Your task to perform on an android device: change alarm snooze length Image 0: 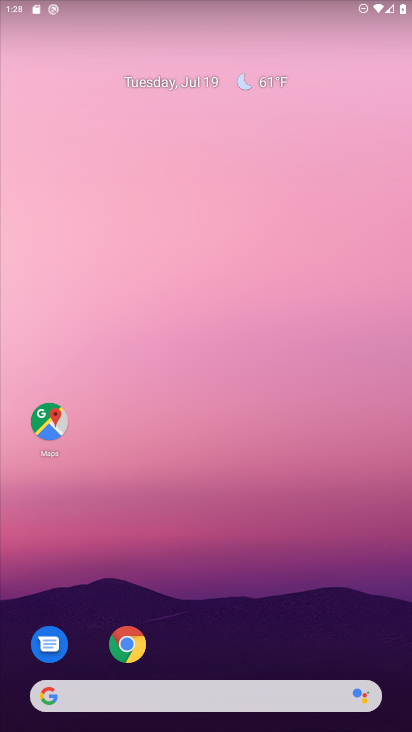
Step 0: drag from (388, 693) to (344, 50)
Your task to perform on an android device: change alarm snooze length Image 1: 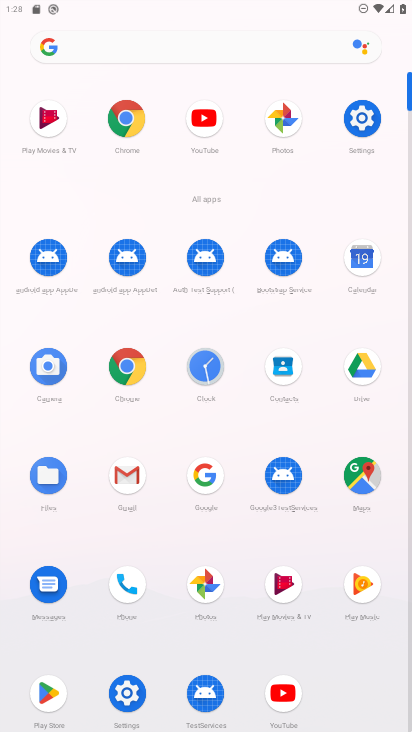
Step 1: click (356, 122)
Your task to perform on an android device: change alarm snooze length Image 2: 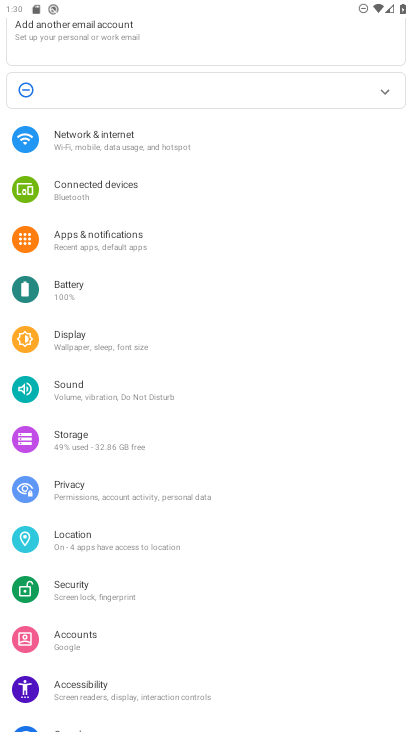
Step 2: drag from (204, 659) to (217, 270)
Your task to perform on an android device: change alarm snooze length Image 3: 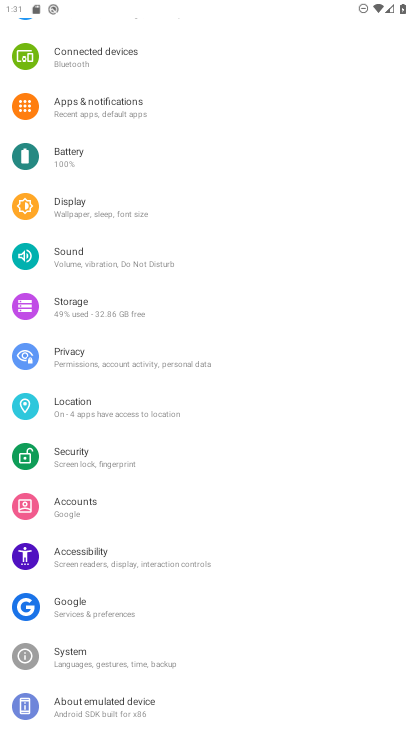
Step 3: press home button
Your task to perform on an android device: change alarm snooze length Image 4: 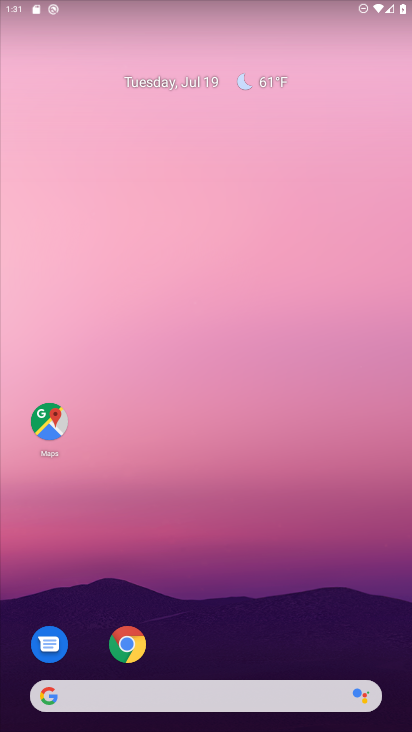
Step 4: drag from (389, 581) to (369, 5)
Your task to perform on an android device: change alarm snooze length Image 5: 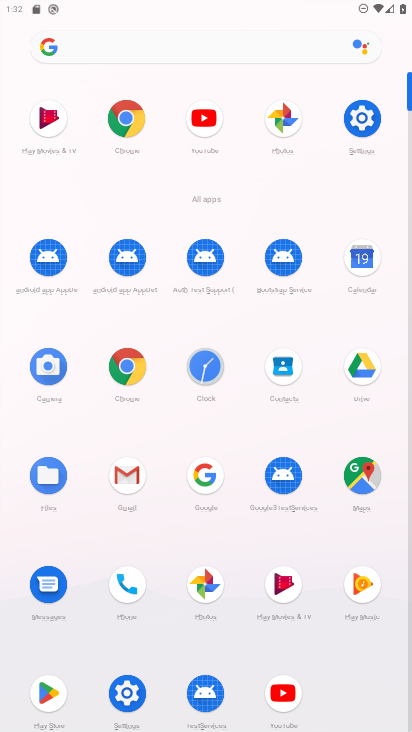
Step 5: click (372, 126)
Your task to perform on an android device: change alarm snooze length Image 6: 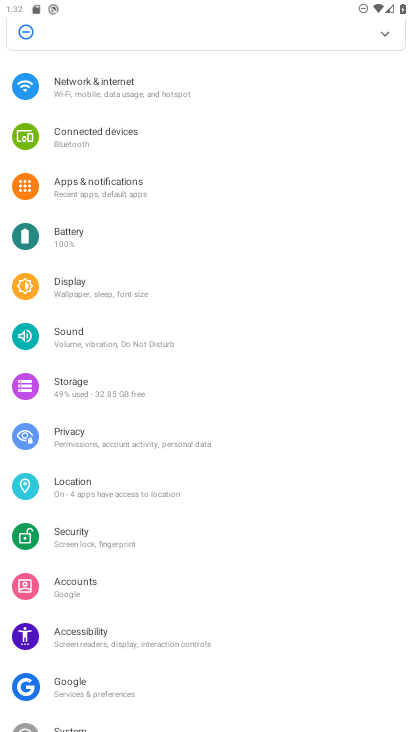
Step 6: press back button
Your task to perform on an android device: change alarm snooze length Image 7: 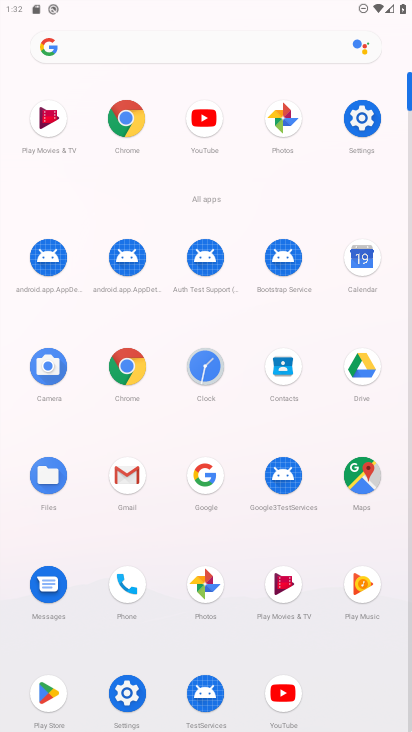
Step 7: press home button
Your task to perform on an android device: change alarm snooze length Image 8: 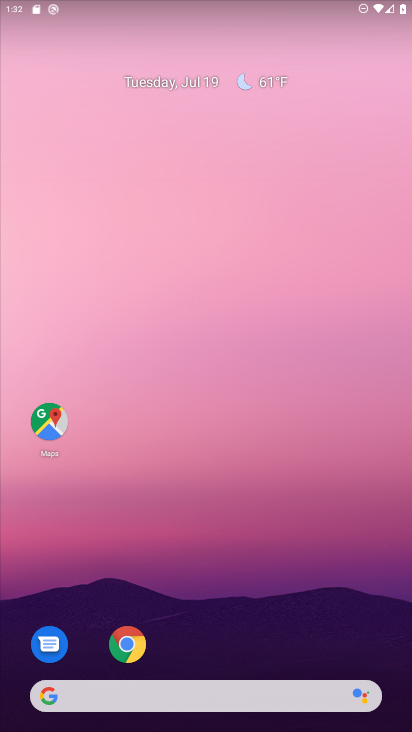
Step 8: drag from (395, 640) to (386, 53)
Your task to perform on an android device: change alarm snooze length Image 9: 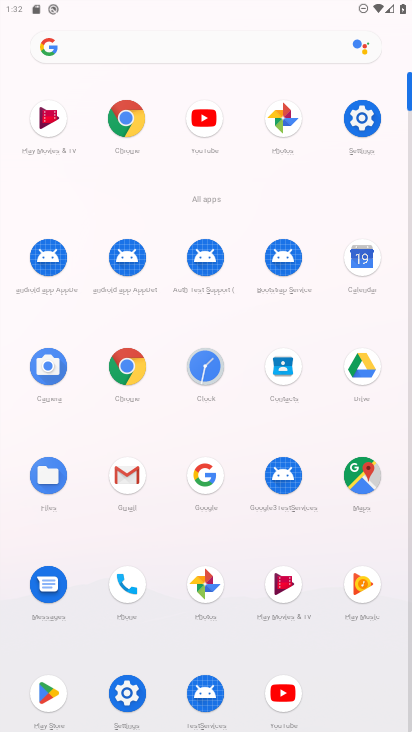
Step 9: click (213, 358)
Your task to perform on an android device: change alarm snooze length Image 10: 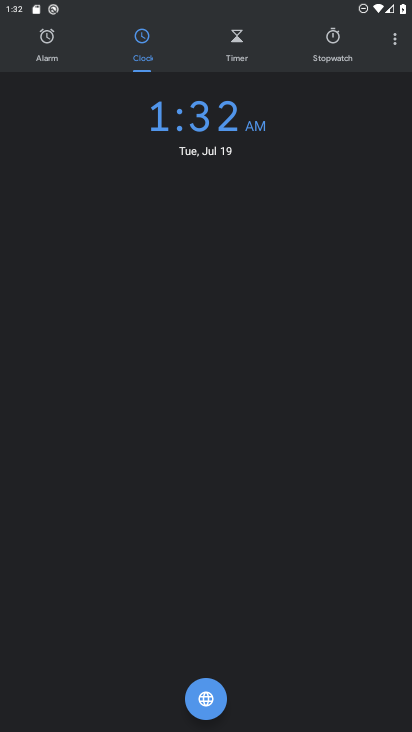
Step 10: click (397, 41)
Your task to perform on an android device: change alarm snooze length Image 11: 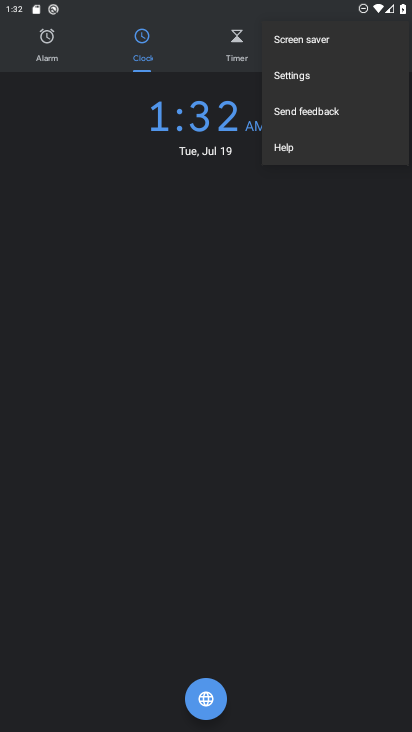
Step 11: click (301, 75)
Your task to perform on an android device: change alarm snooze length Image 12: 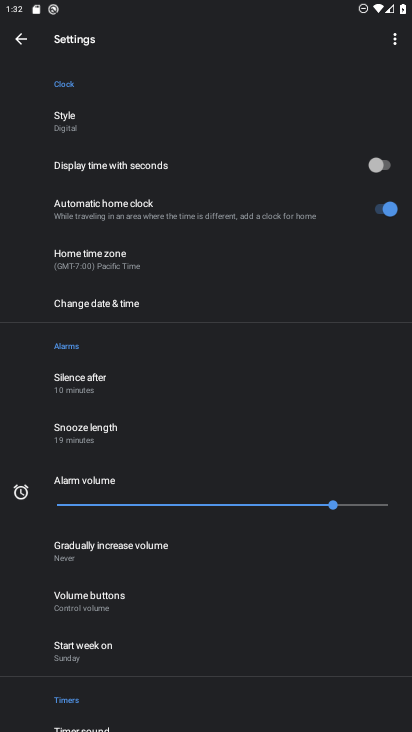
Step 12: click (78, 429)
Your task to perform on an android device: change alarm snooze length Image 13: 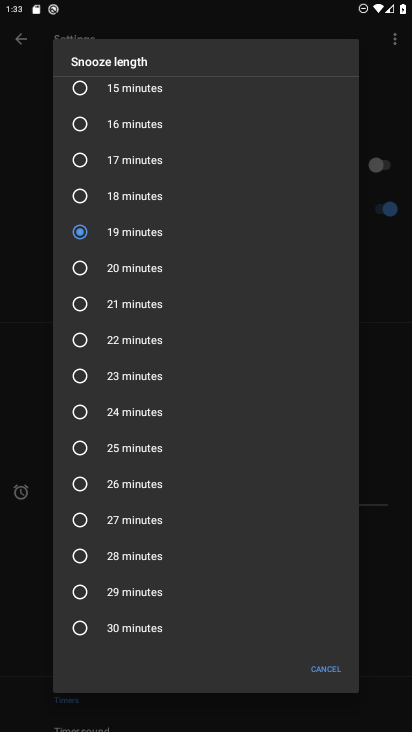
Step 13: click (77, 268)
Your task to perform on an android device: change alarm snooze length Image 14: 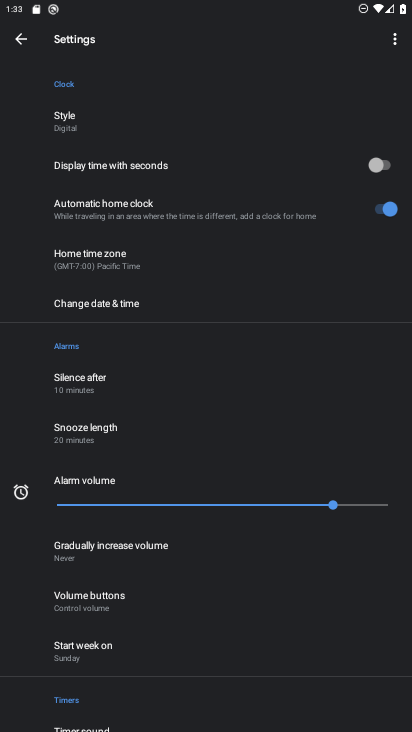
Step 14: task complete